Your task to perform on an android device: make emails show in primary in the gmail app Image 0: 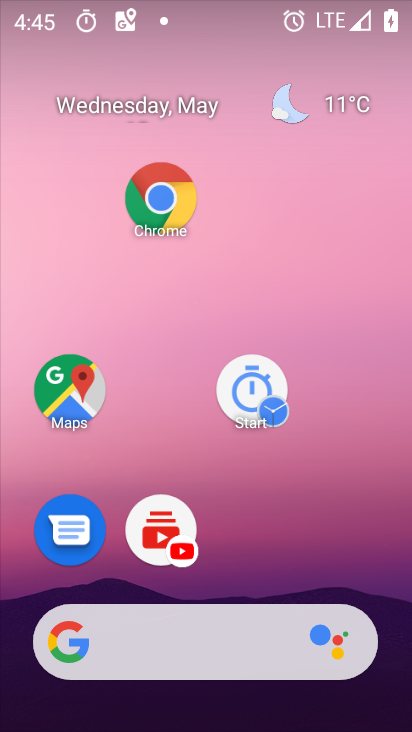
Step 0: click (203, 85)
Your task to perform on an android device: make emails show in primary in the gmail app Image 1: 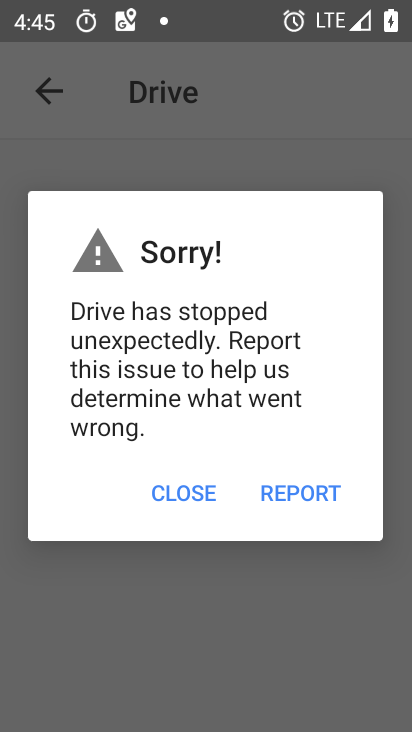
Step 1: click (183, 499)
Your task to perform on an android device: make emails show in primary in the gmail app Image 2: 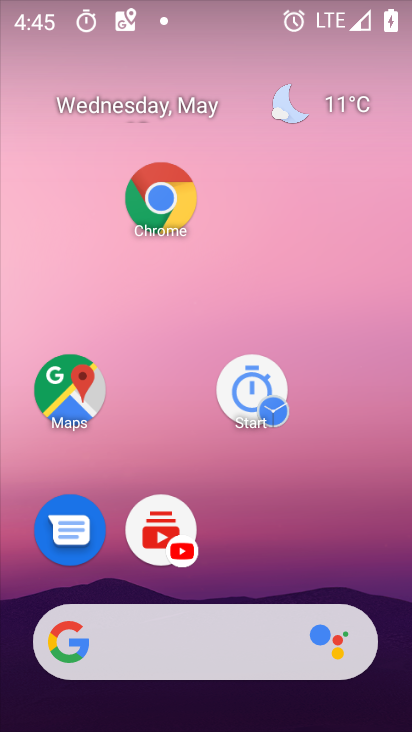
Step 2: drag from (311, 694) to (142, 55)
Your task to perform on an android device: make emails show in primary in the gmail app Image 3: 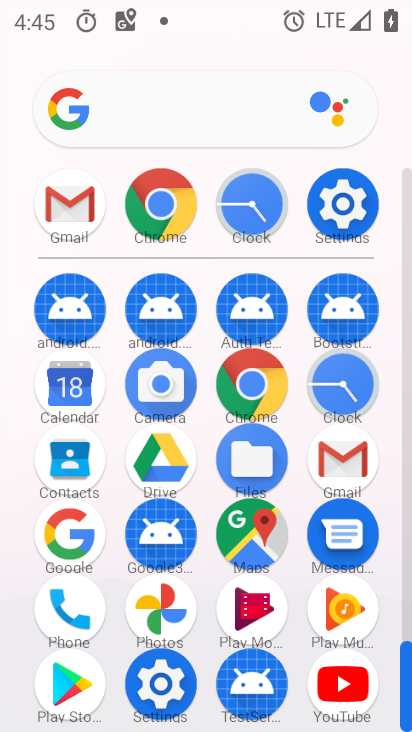
Step 3: click (337, 457)
Your task to perform on an android device: make emails show in primary in the gmail app Image 4: 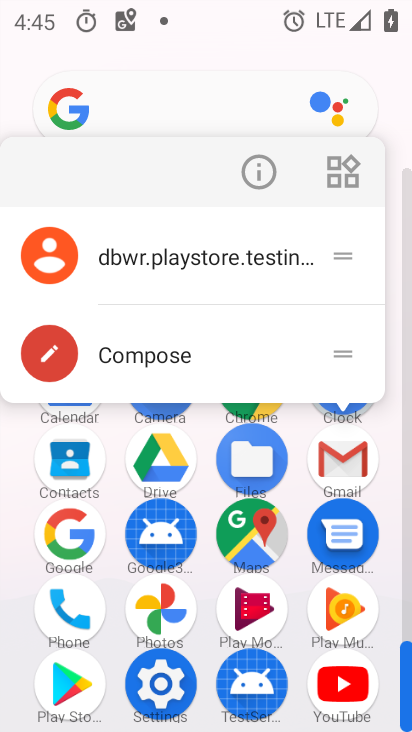
Step 4: click (339, 455)
Your task to perform on an android device: make emails show in primary in the gmail app Image 5: 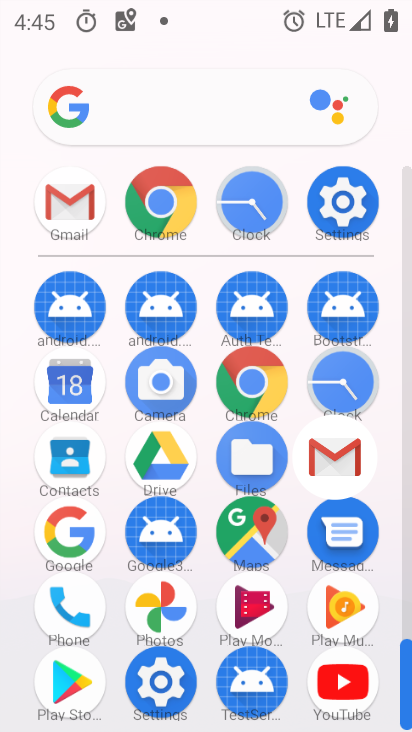
Step 5: click (340, 454)
Your task to perform on an android device: make emails show in primary in the gmail app Image 6: 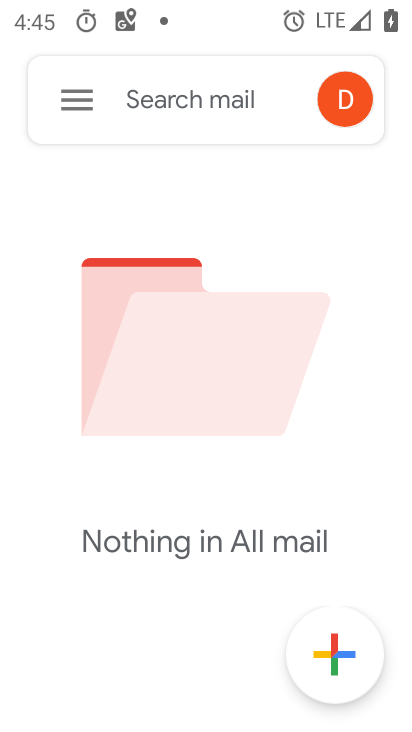
Step 6: click (81, 102)
Your task to perform on an android device: make emails show in primary in the gmail app Image 7: 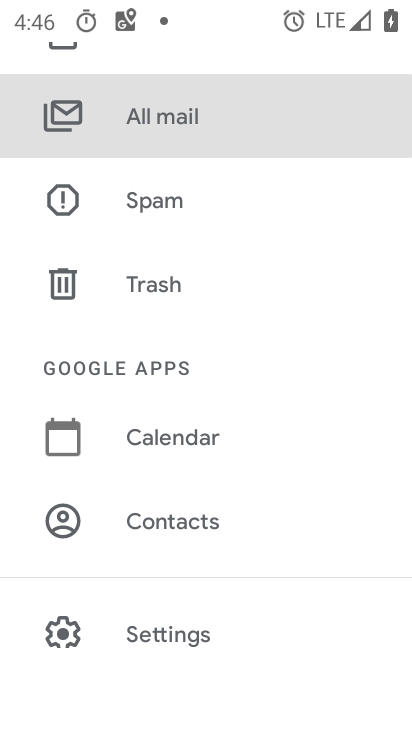
Step 7: click (165, 635)
Your task to perform on an android device: make emails show in primary in the gmail app Image 8: 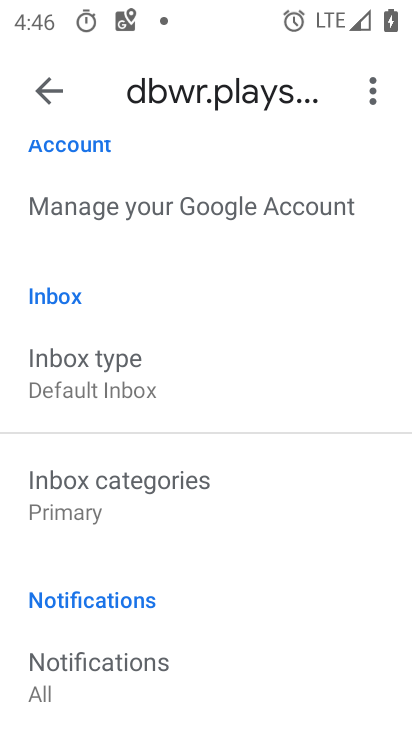
Step 8: click (79, 484)
Your task to perform on an android device: make emails show in primary in the gmail app Image 9: 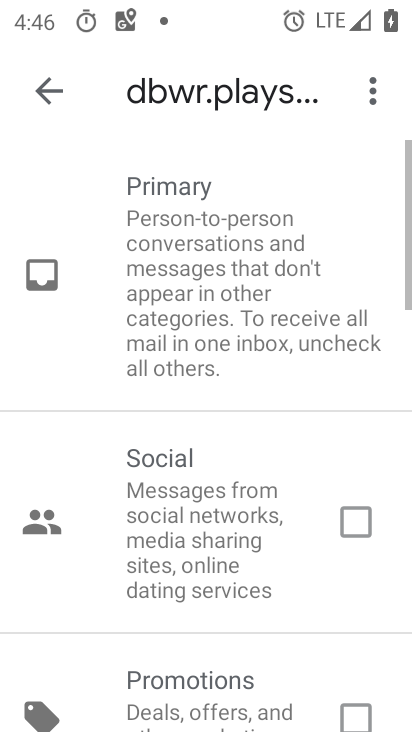
Step 9: click (196, 235)
Your task to perform on an android device: make emails show in primary in the gmail app Image 10: 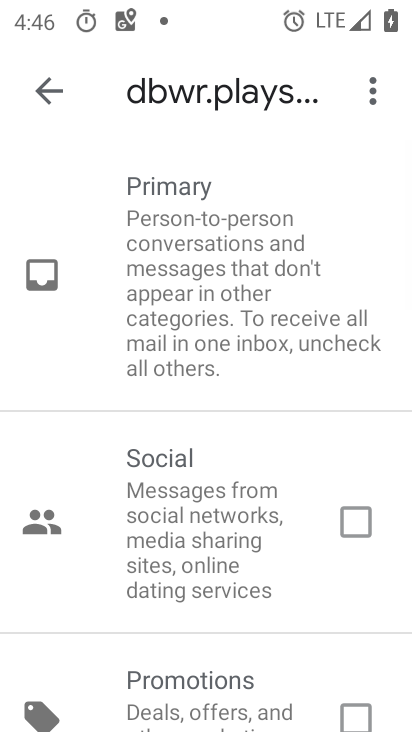
Step 10: task complete